Your task to perform on an android device: toggle priority inbox in the gmail app Image 0: 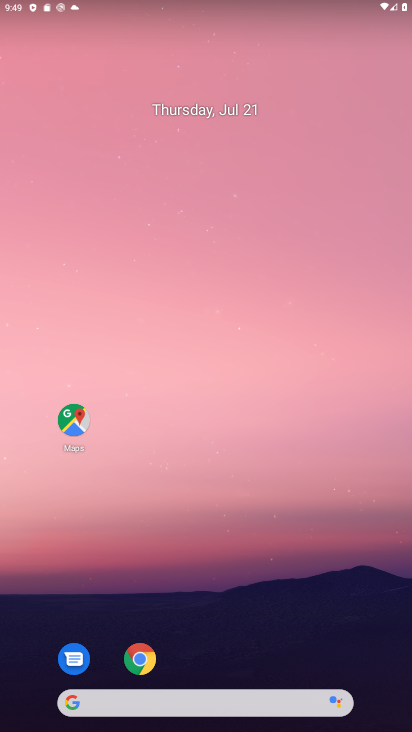
Step 0: task complete